Your task to perform on an android device: set the timer Image 0: 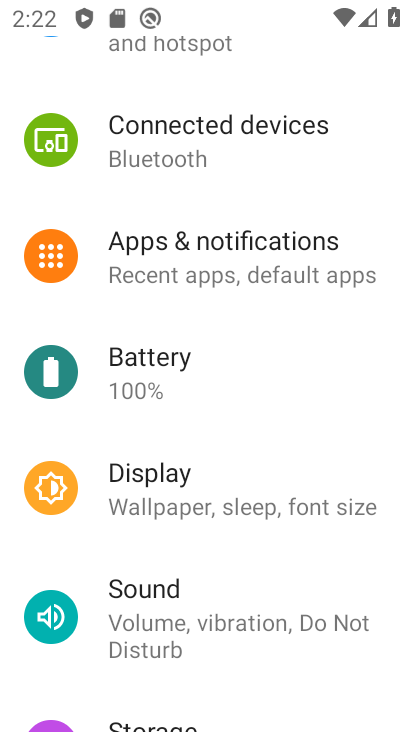
Step 0: press back button
Your task to perform on an android device: set the timer Image 1: 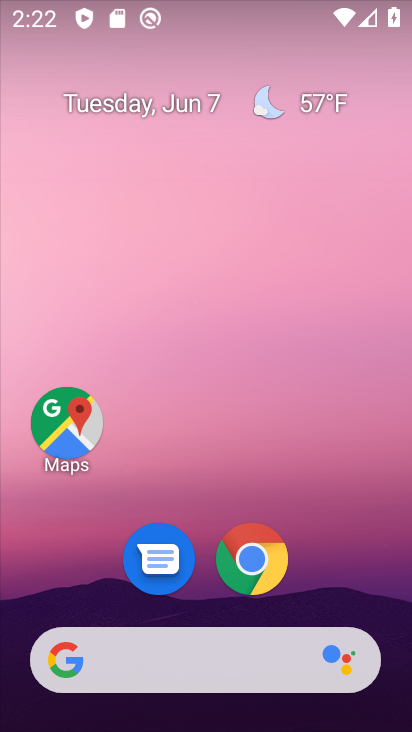
Step 1: drag from (324, 552) to (290, 0)
Your task to perform on an android device: set the timer Image 2: 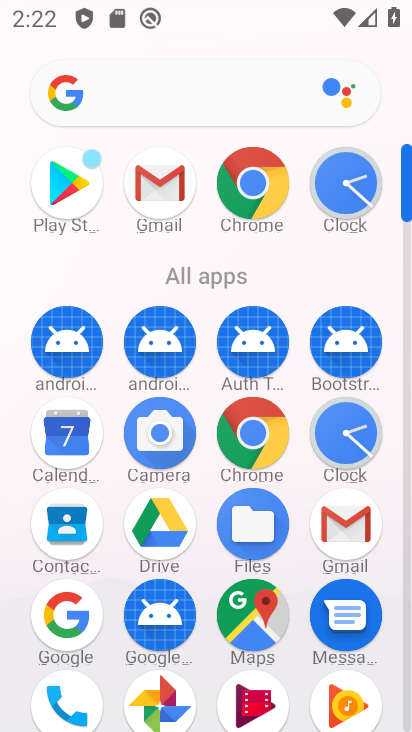
Step 2: click (351, 179)
Your task to perform on an android device: set the timer Image 3: 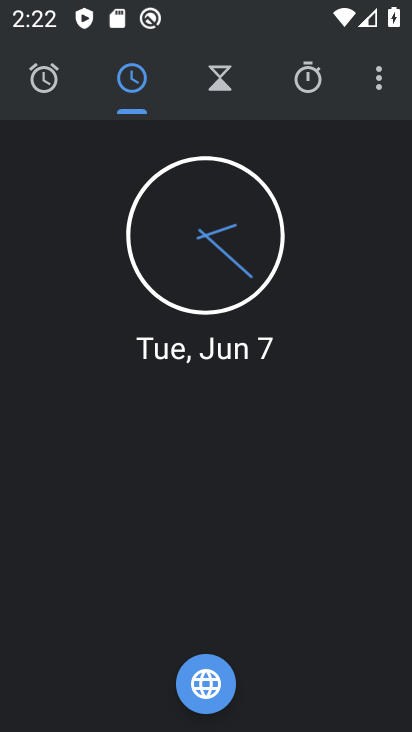
Step 3: drag from (382, 78) to (81, 135)
Your task to perform on an android device: set the timer Image 4: 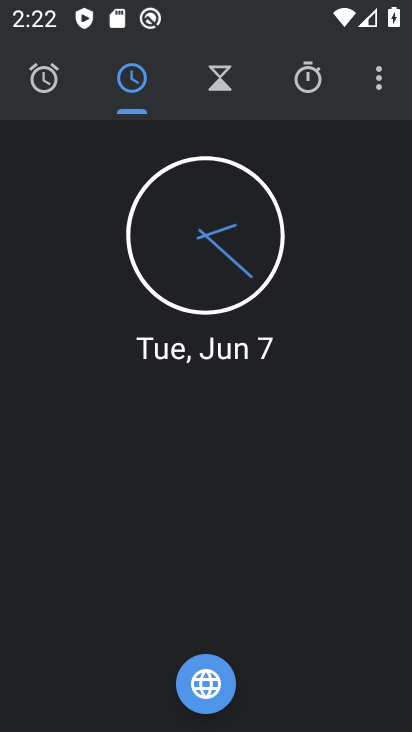
Step 4: click (290, 73)
Your task to perform on an android device: set the timer Image 5: 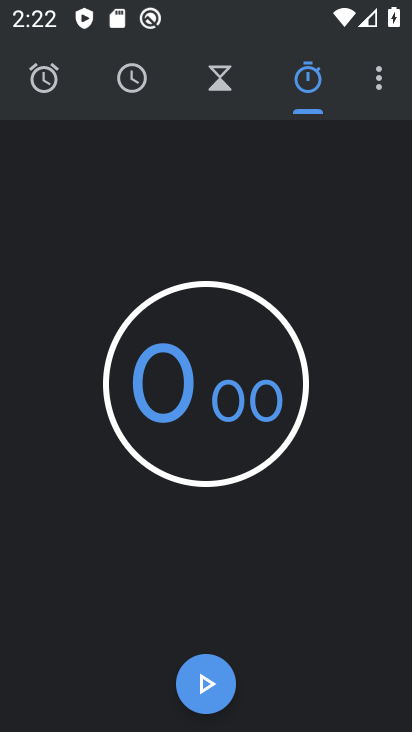
Step 5: click (216, 677)
Your task to perform on an android device: set the timer Image 6: 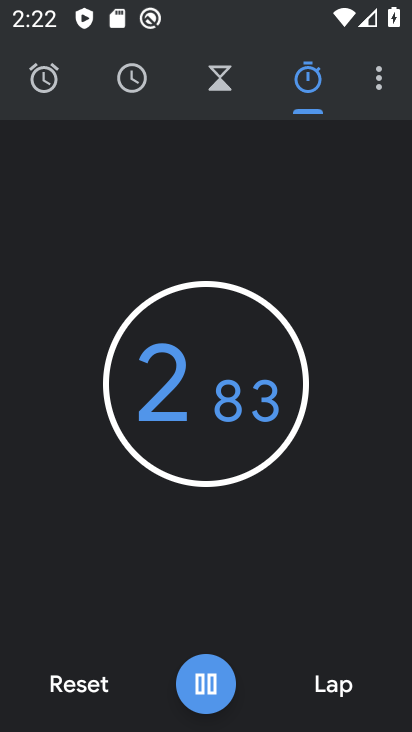
Step 6: task complete